Your task to perform on an android device: What's the weather like in Tokyo? Image 0: 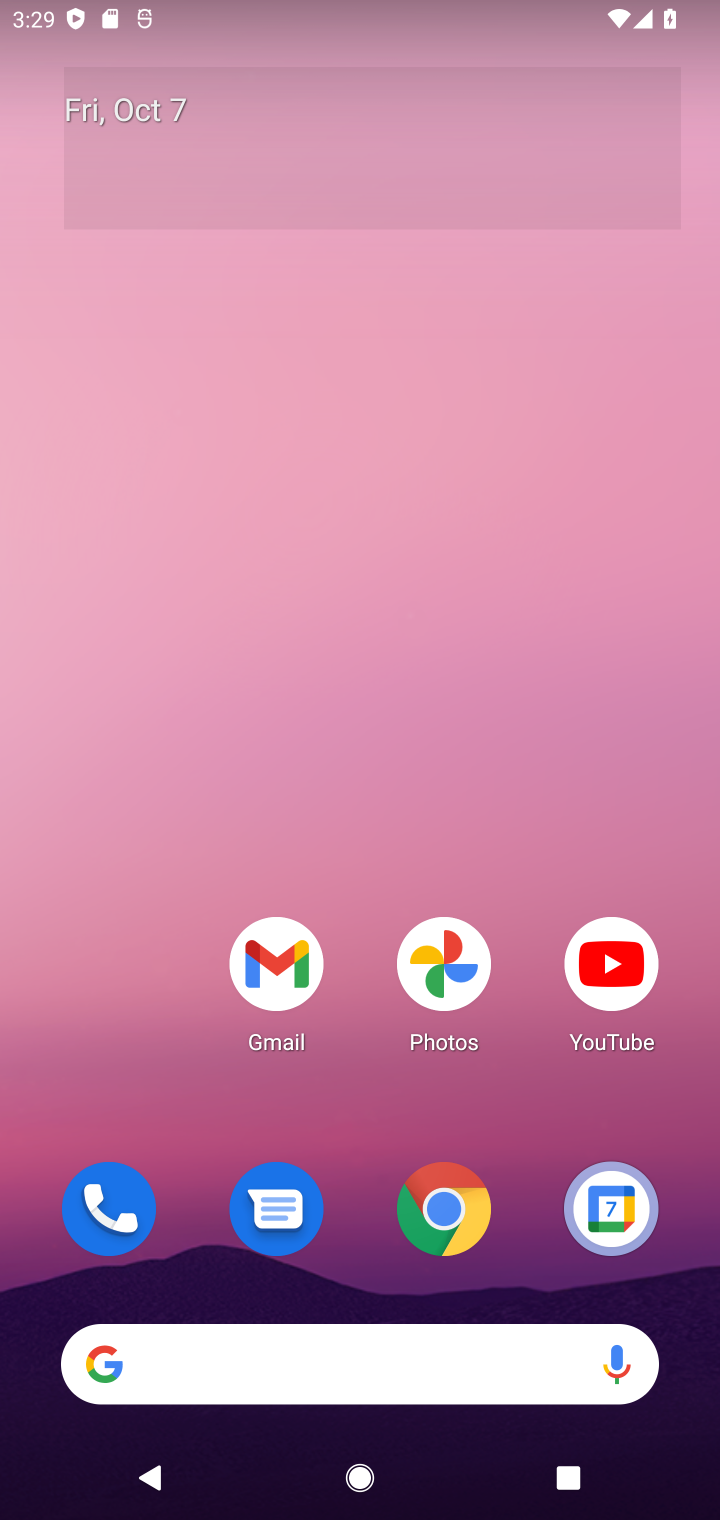
Step 0: press home button
Your task to perform on an android device: What's the weather like in Tokyo? Image 1: 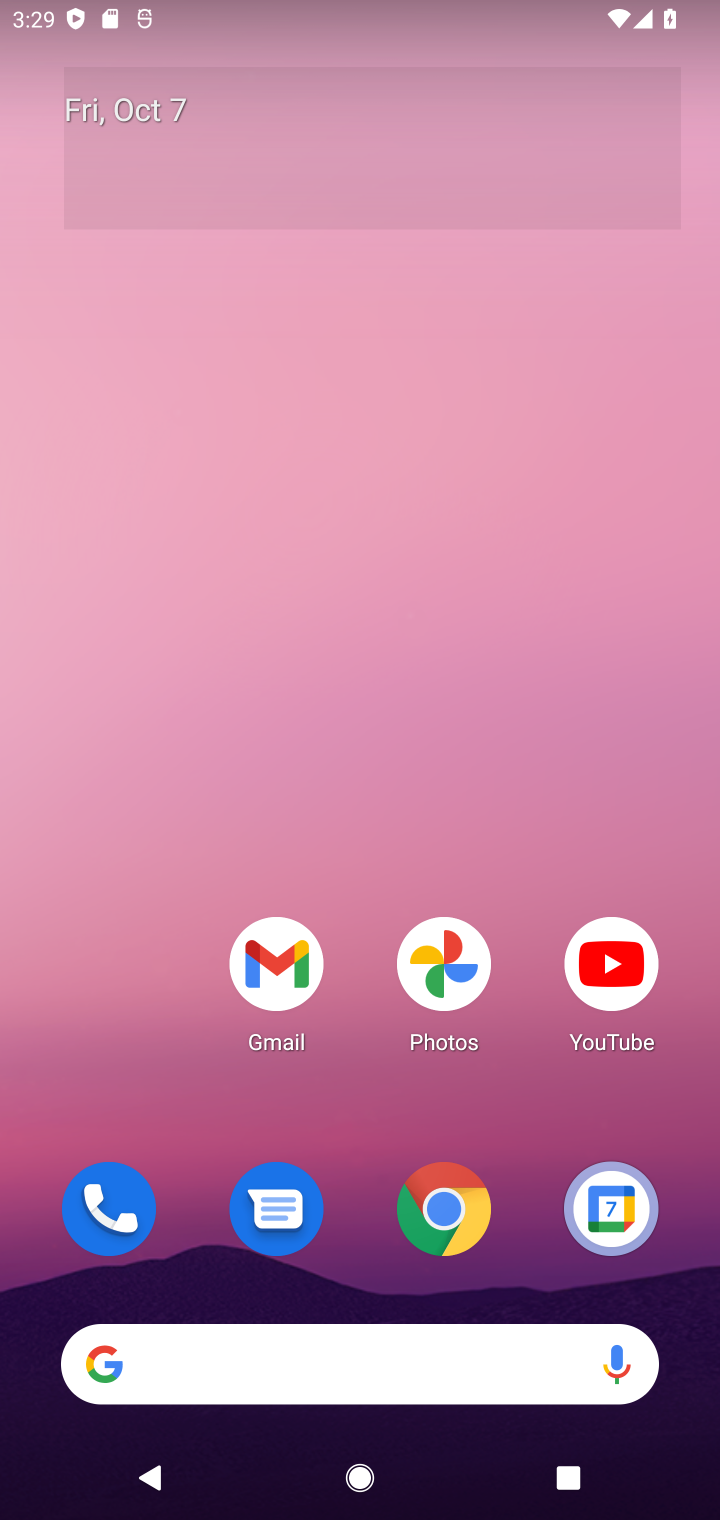
Step 1: click (382, 1356)
Your task to perform on an android device: What's the weather like in Tokyo? Image 2: 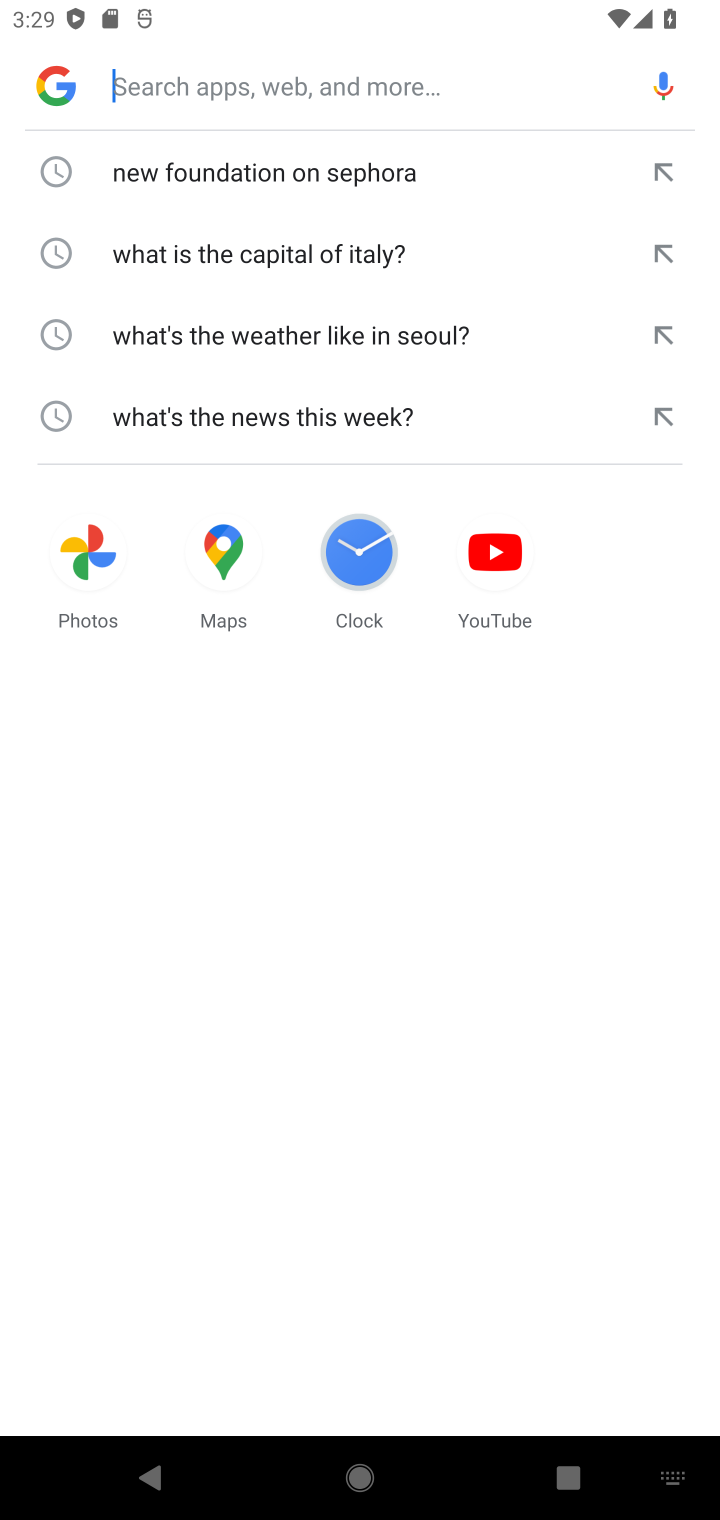
Step 2: type "What's the weather like in Tokyo?"
Your task to perform on an android device: What's the weather like in Tokyo? Image 3: 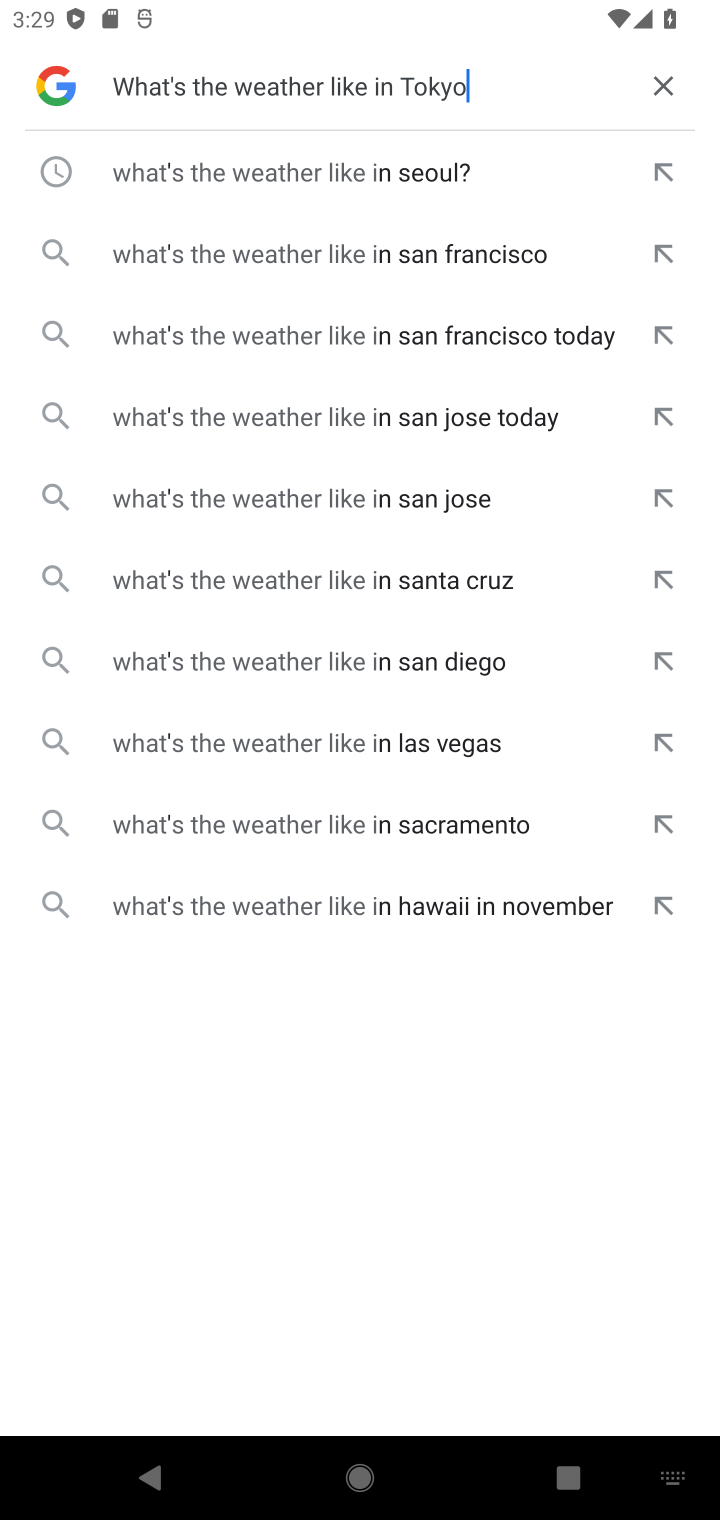
Step 3: press enter
Your task to perform on an android device: What's the weather like in Tokyo? Image 4: 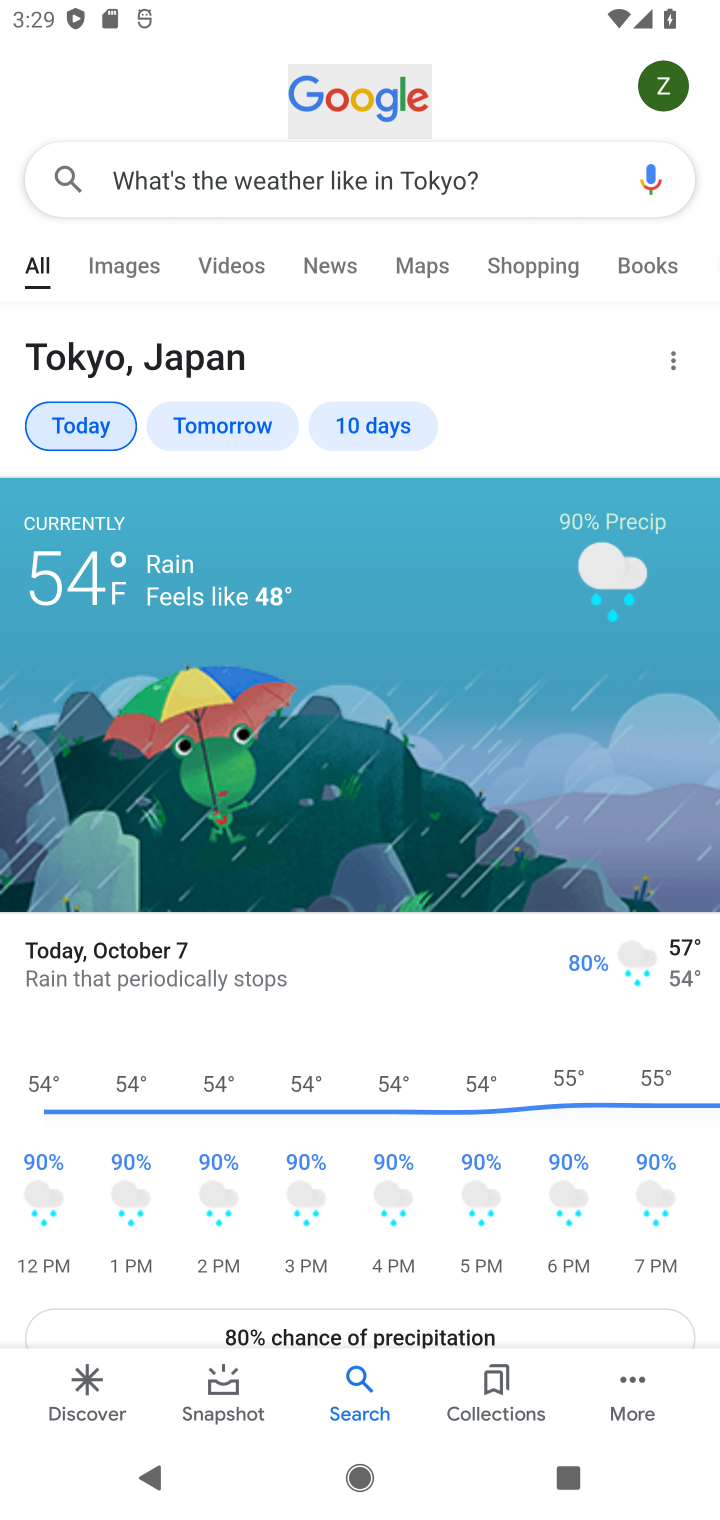
Step 4: task complete